Your task to perform on an android device: search for starred emails in the gmail app Image 0: 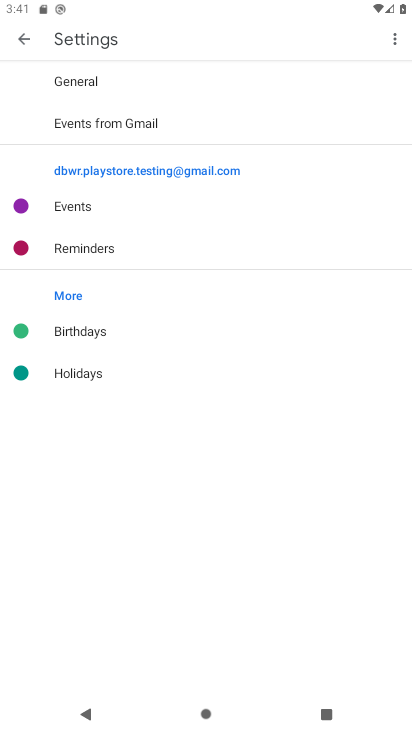
Step 0: press home button
Your task to perform on an android device: search for starred emails in the gmail app Image 1: 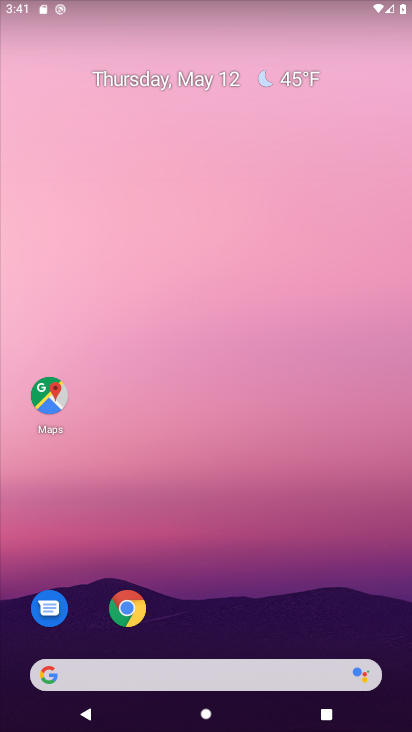
Step 1: drag from (265, 563) to (266, 76)
Your task to perform on an android device: search for starred emails in the gmail app Image 2: 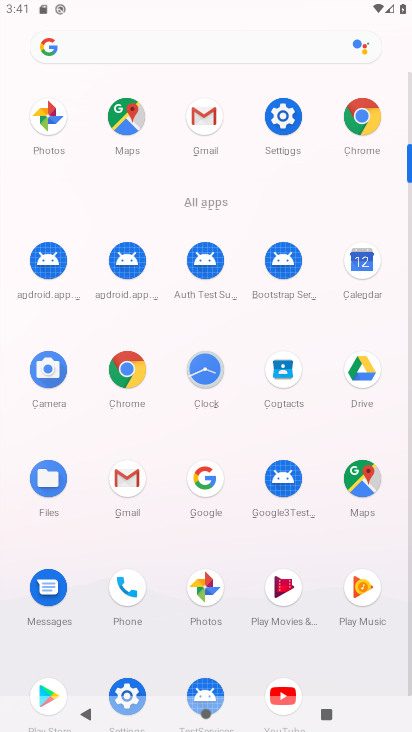
Step 2: click (203, 122)
Your task to perform on an android device: search for starred emails in the gmail app Image 3: 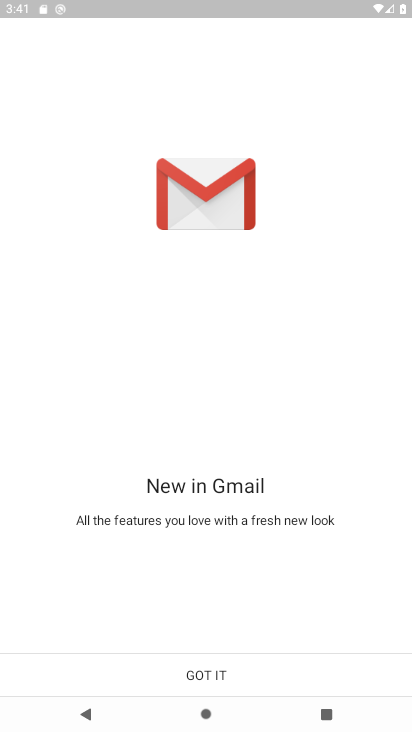
Step 3: click (261, 667)
Your task to perform on an android device: search for starred emails in the gmail app Image 4: 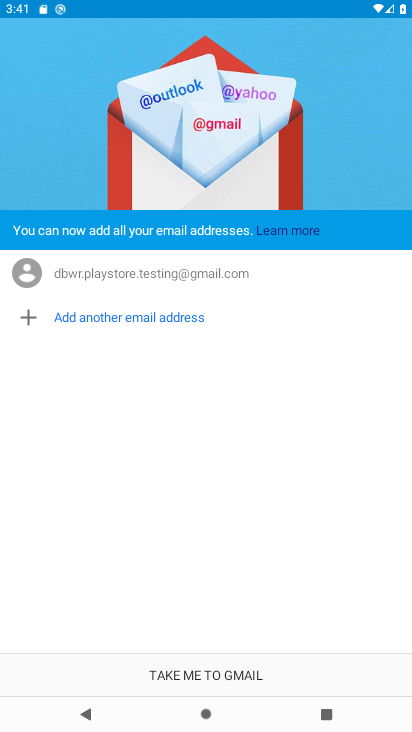
Step 4: click (261, 669)
Your task to perform on an android device: search for starred emails in the gmail app Image 5: 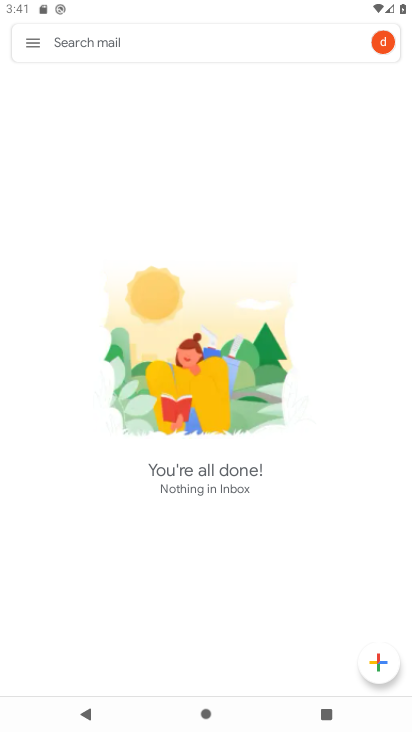
Step 5: click (33, 34)
Your task to perform on an android device: search for starred emails in the gmail app Image 6: 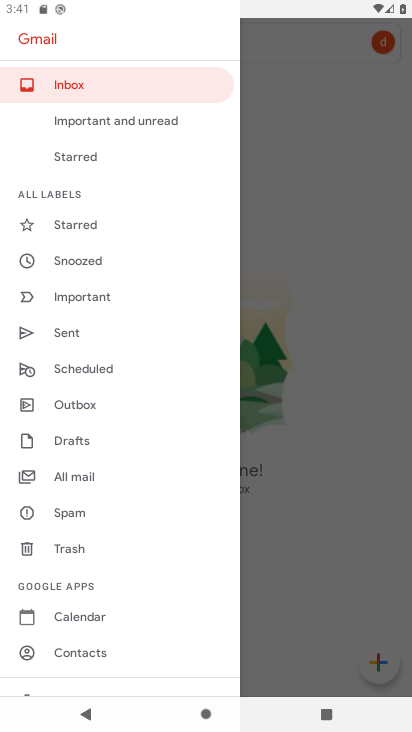
Step 6: click (67, 219)
Your task to perform on an android device: search for starred emails in the gmail app Image 7: 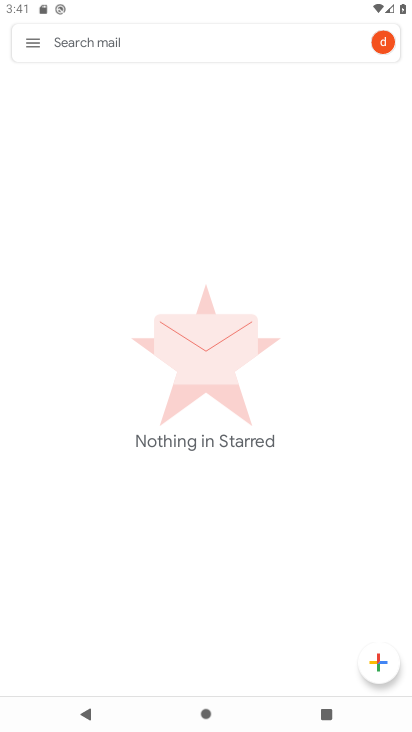
Step 7: task complete